Your task to perform on an android device: Go to settings Image 0: 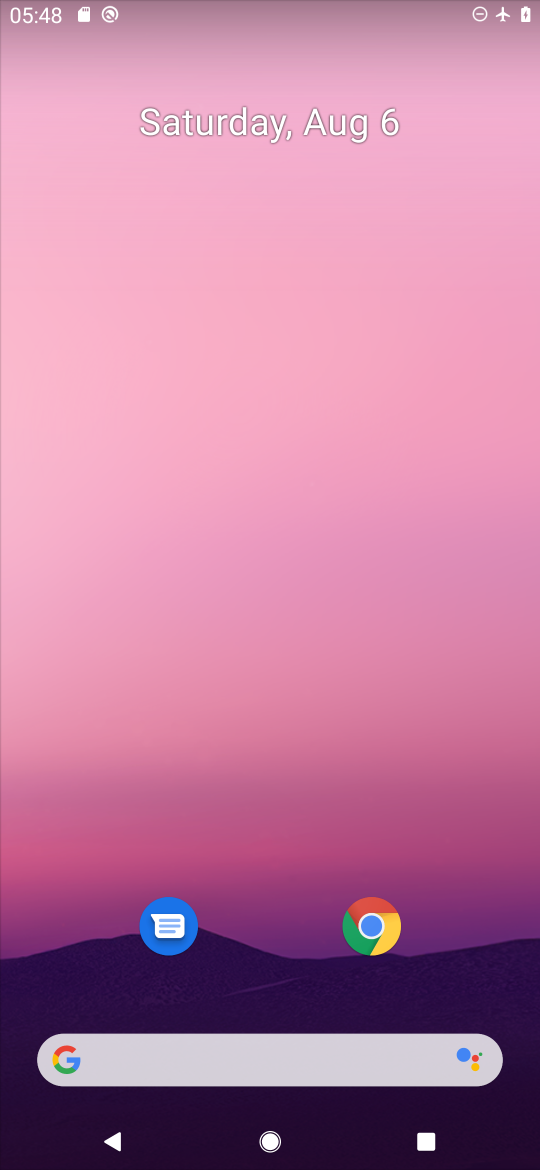
Step 0: drag from (279, 838) to (255, 272)
Your task to perform on an android device: Go to settings Image 1: 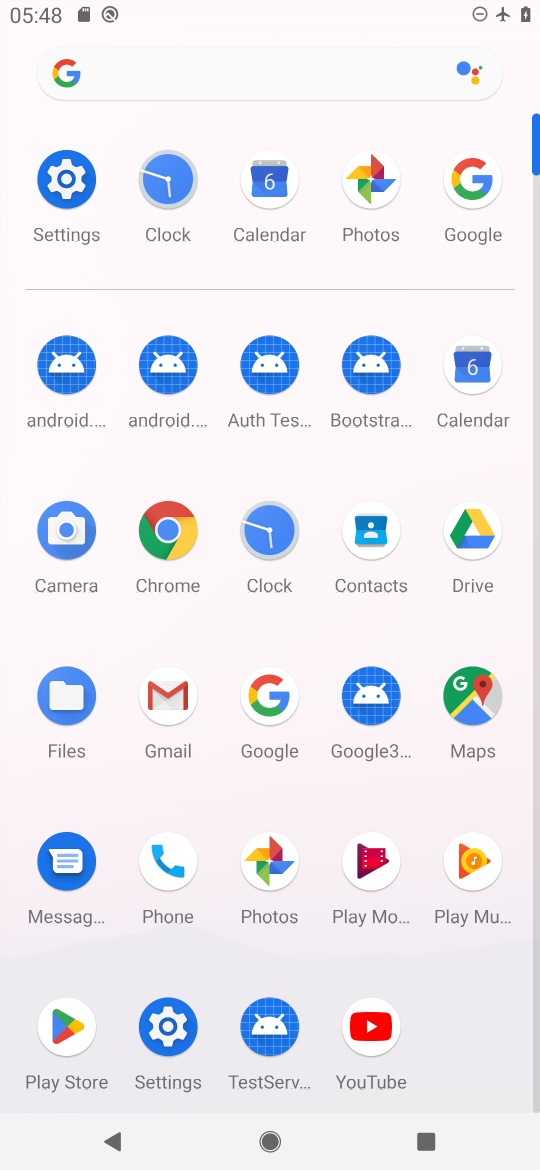
Step 1: click (75, 184)
Your task to perform on an android device: Go to settings Image 2: 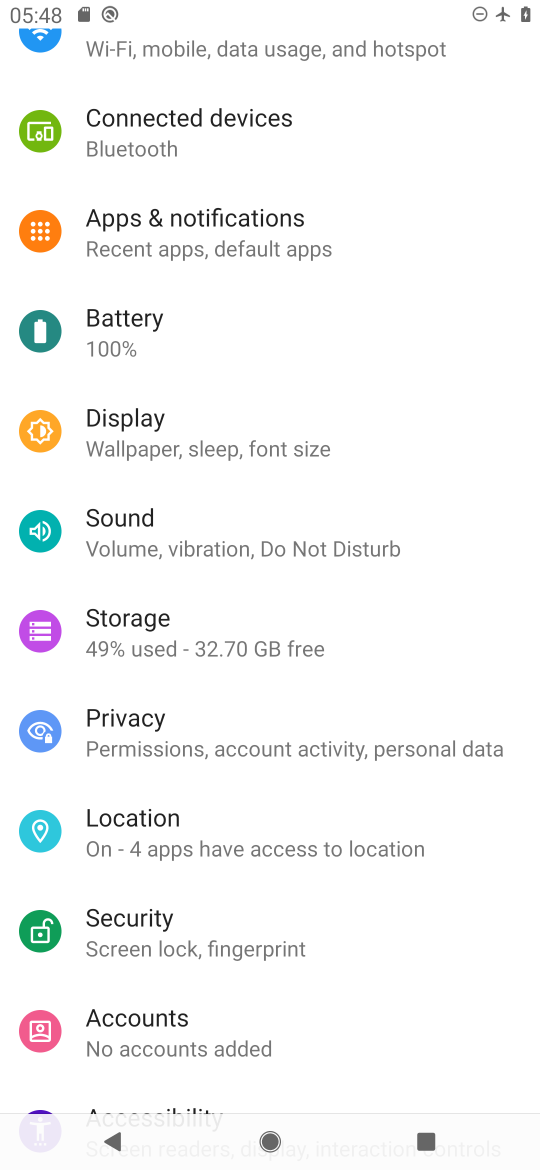
Step 2: task complete